Your task to perform on an android device: Go to CNN.com Image 0: 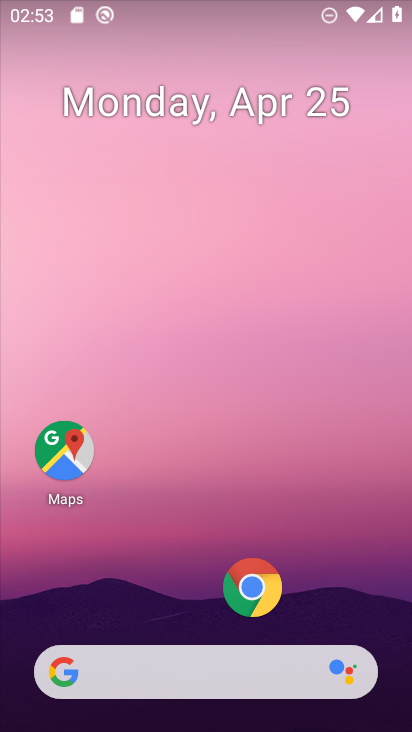
Step 0: drag from (203, 613) to (249, 52)
Your task to perform on an android device: Go to CNN.com Image 1: 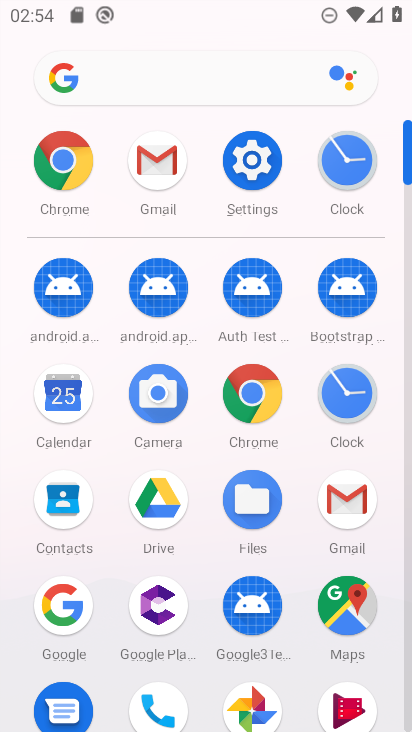
Step 1: click (247, 385)
Your task to perform on an android device: Go to CNN.com Image 2: 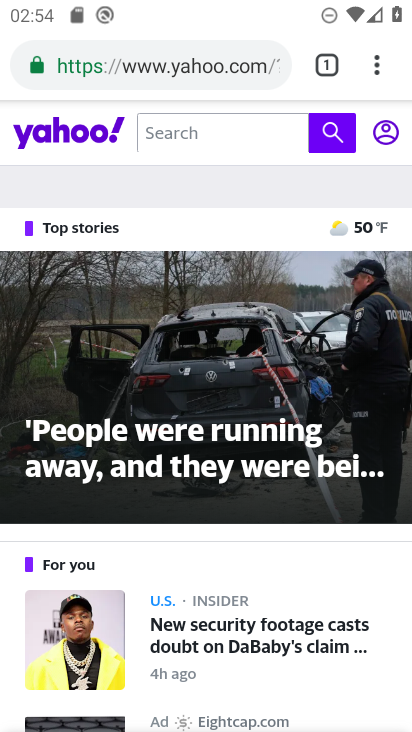
Step 2: click (373, 62)
Your task to perform on an android device: Go to CNN.com Image 3: 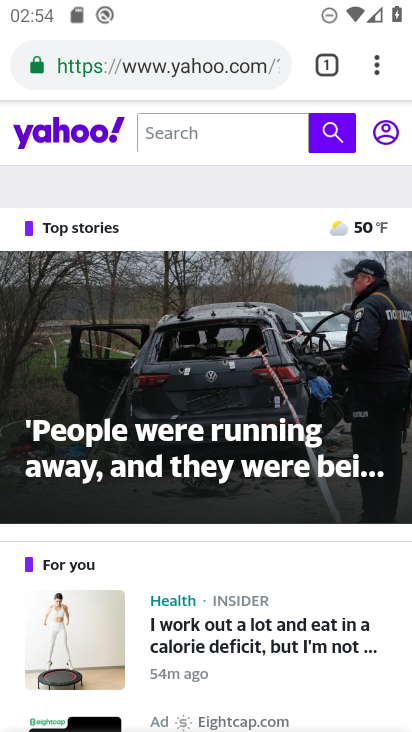
Step 3: click (333, 60)
Your task to perform on an android device: Go to CNN.com Image 4: 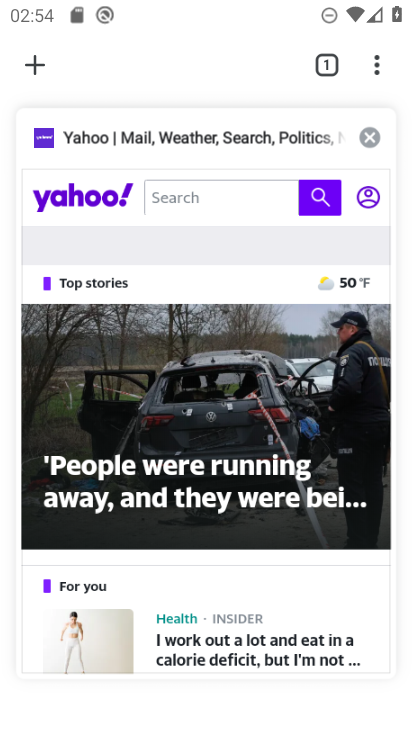
Step 4: click (368, 135)
Your task to perform on an android device: Go to CNN.com Image 5: 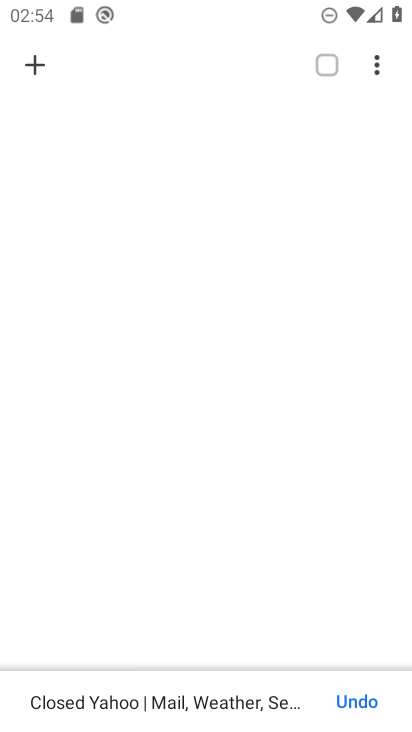
Step 5: click (41, 65)
Your task to perform on an android device: Go to CNN.com Image 6: 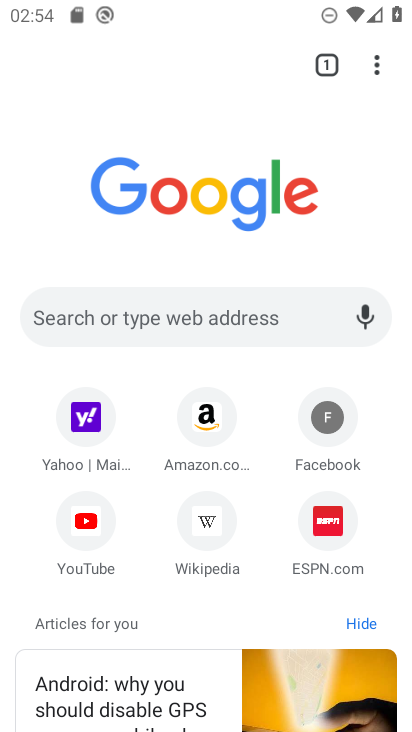
Step 6: click (128, 317)
Your task to perform on an android device: Go to CNN.com Image 7: 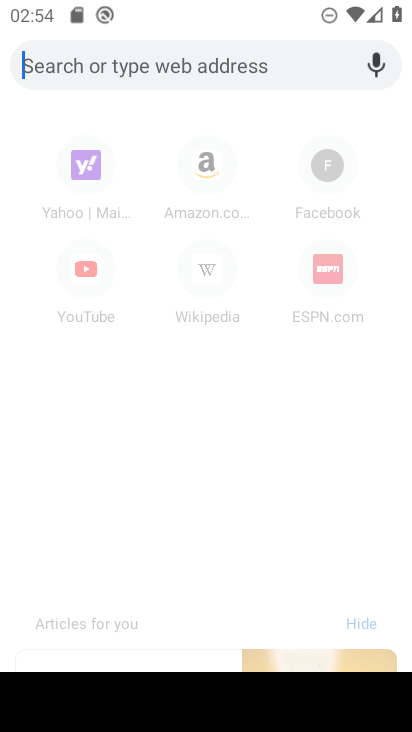
Step 7: type "cnn.com"
Your task to perform on an android device: Go to CNN.com Image 8: 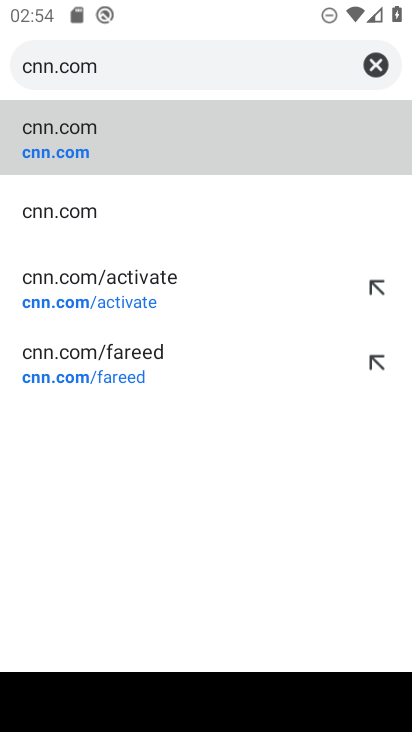
Step 8: click (102, 140)
Your task to perform on an android device: Go to CNN.com Image 9: 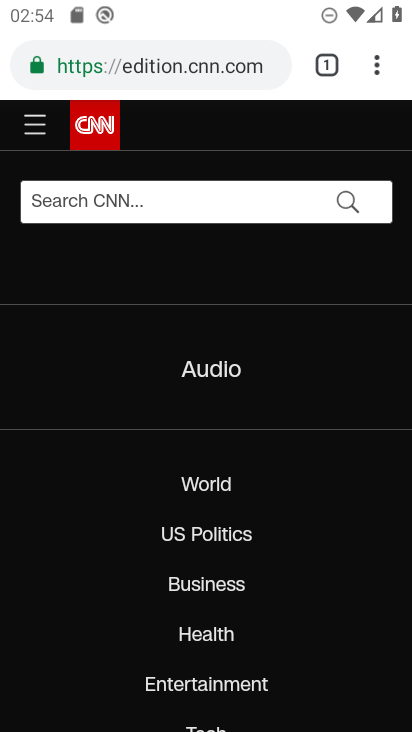
Step 9: task complete